Your task to perform on an android device: When is my next meeting? Image 0: 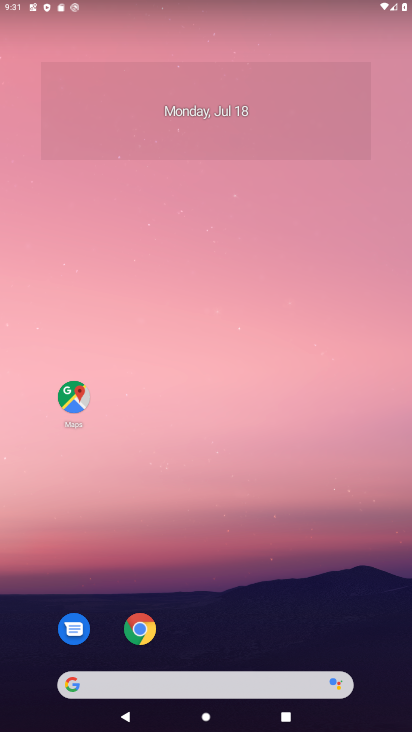
Step 0: drag from (281, 467) to (295, 115)
Your task to perform on an android device: When is my next meeting? Image 1: 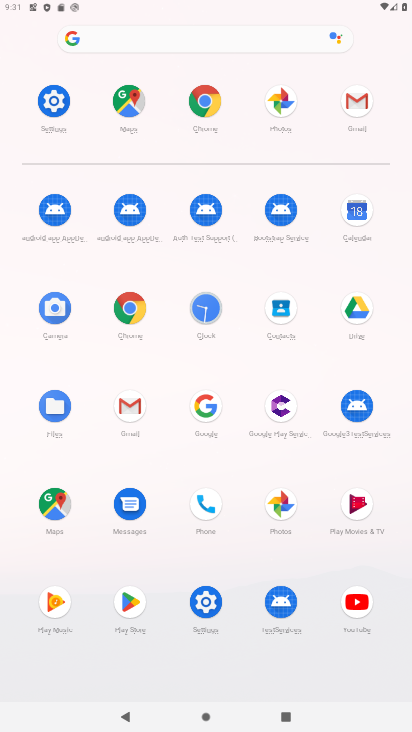
Step 1: click (363, 211)
Your task to perform on an android device: When is my next meeting? Image 2: 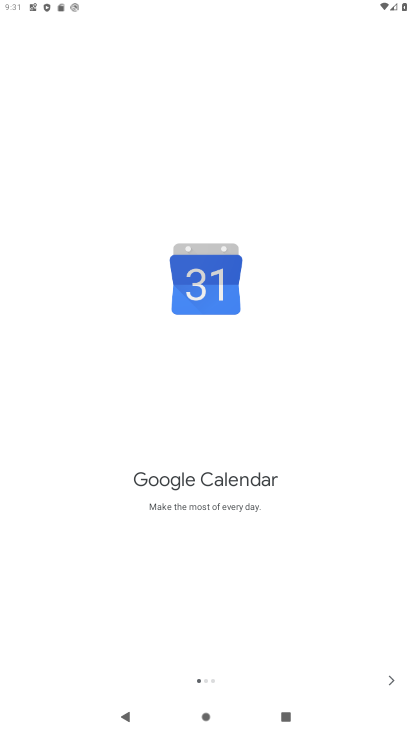
Step 2: click (392, 687)
Your task to perform on an android device: When is my next meeting? Image 3: 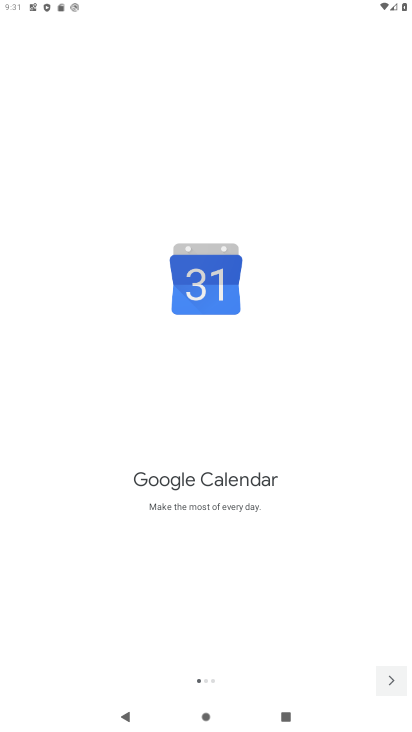
Step 3: click (392, 685)
Your task to perform on an android device: When is my next meeting? Image 4: 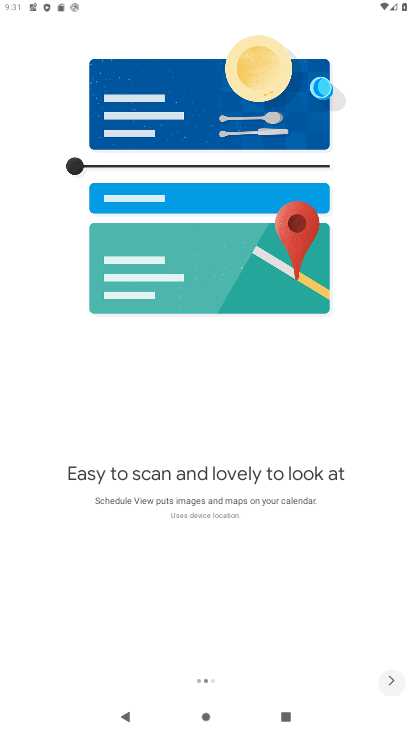
Step 4: click (392, 685)
Your task to perform on an android device: When is my next meeting? Image 5: 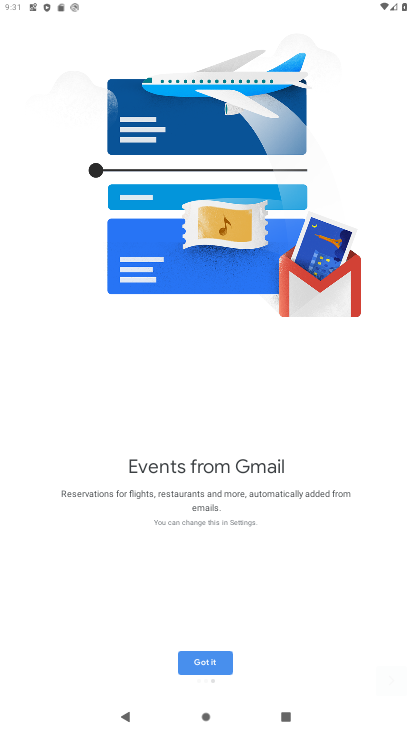
Step 5: click (392, 685)
Your task to perform on an android device: When is my next meeting? Image 6: 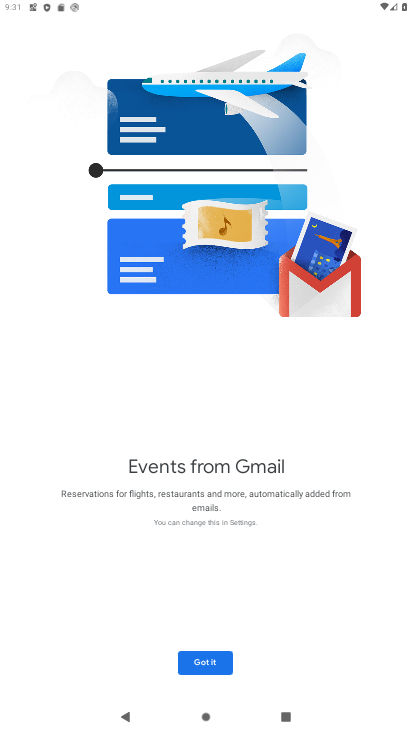
Step 6: click (392, 685)
Your task to perform on an android device: When is my next meeting? Image 7: 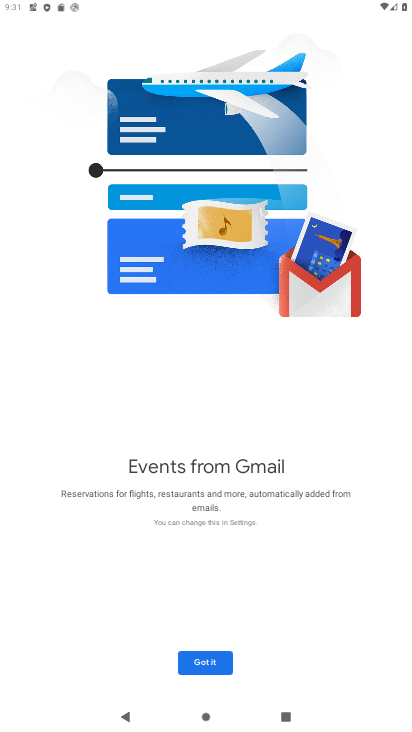
Step 7: click (207, 661)
Your task to perform on an android device: When is my next meeting? Image 8: 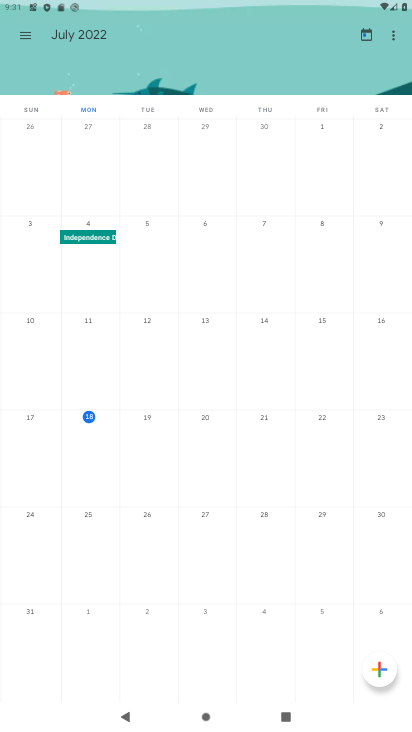
Step 8: click (85, 425)
Your task to perform on an android device: When is my next meeting? Image 9: 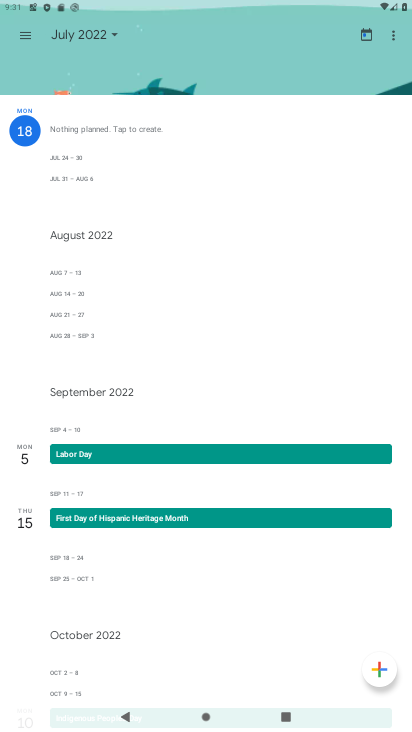
Step 9: click (27, 38)
Your task to perform on an android device: When is my next meeting? Image 10: 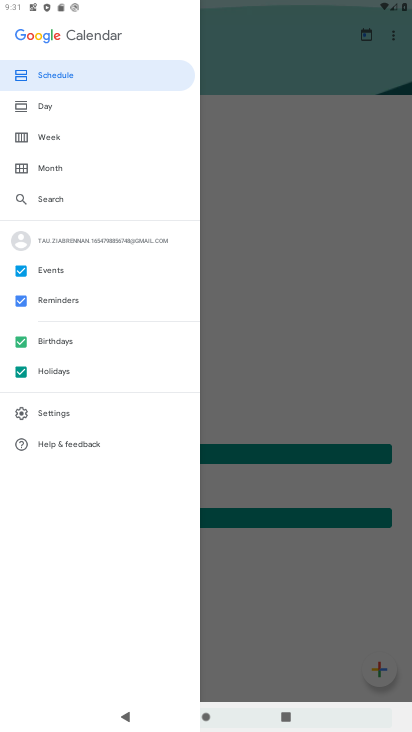
Step 10: click (55, 142)
Your task to perform on an android device: When is my next meeting? Image 11: 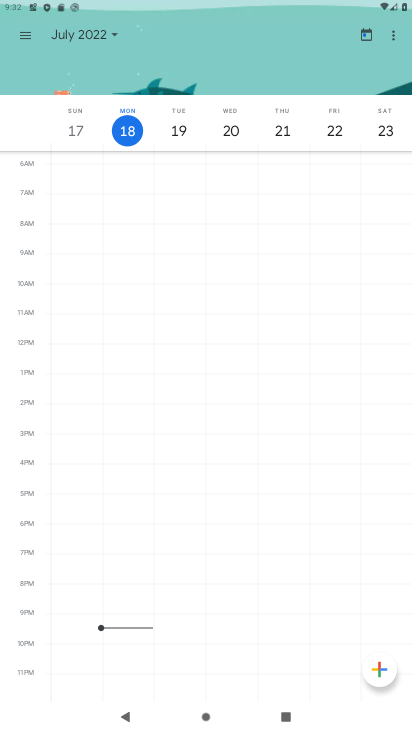
Step 11: task complete